Your task to perform on an android device: search for starred emails in the gmail app Image 0: 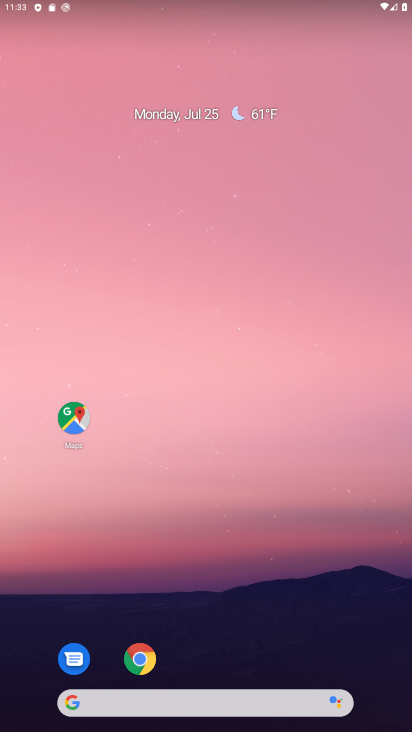
Step 0: drag from (206, 708) to (206, 239)
Your task to perform on an android device: search for starred emails in the gmail app Image 1: 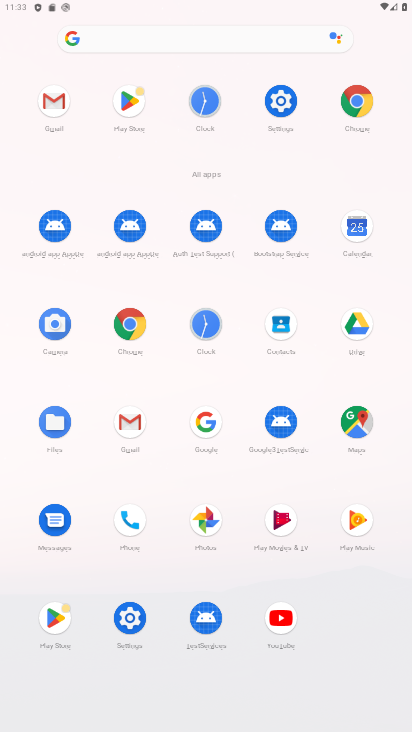
Step 1: click (123, 426)
Your task to perform on an android device: search for starred emails in the gmail app Image 2: 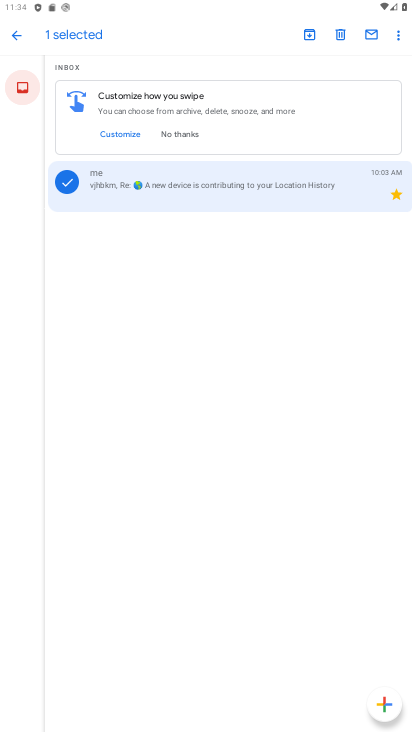
Step 2: click (14, 33)
Your task to perform on an android device: search for starred emails in the gmail app Image 3: 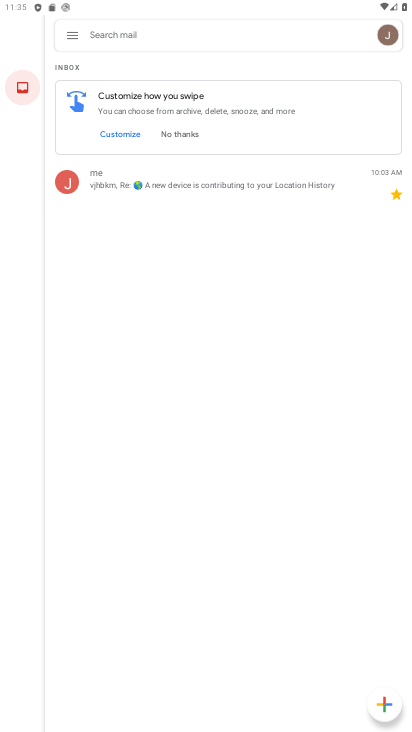
Step 3: click (72, 33)
Your task to perform on an android device: search for starred emails in the gmail app Image 4: 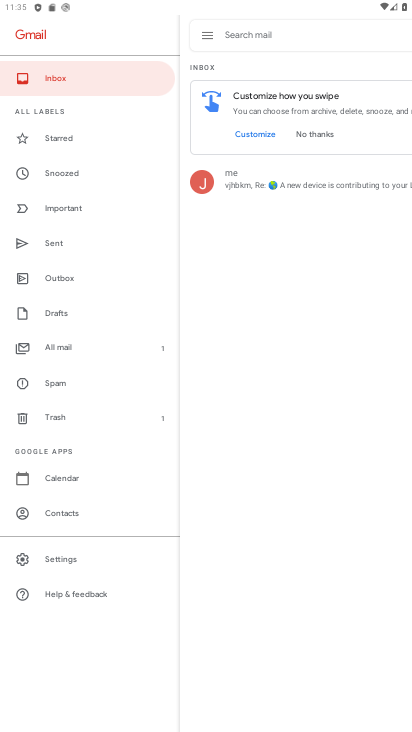
Step 4: click (64, 140)
Your task to perform on an android device: search for starred emails in the gmail app Image 5: 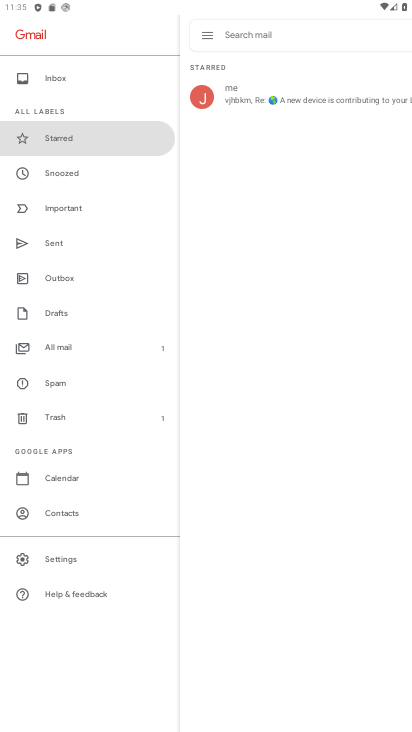
Step 5: task complete